Your task to perform on an android device: Go to wifi settings Image 0: 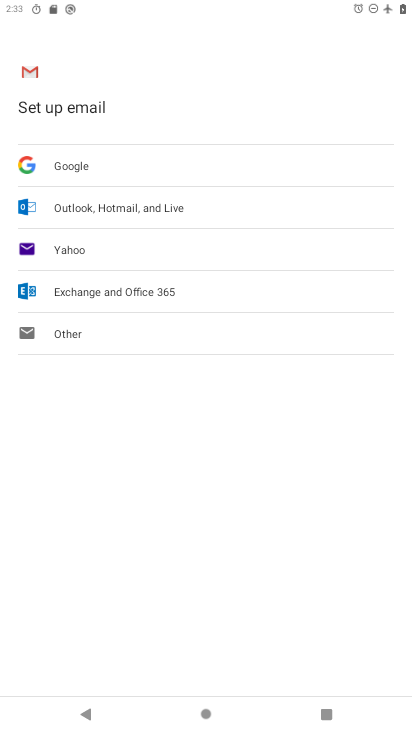
Step 0: press home button
Your task to perform on an android device: Go to wifi settings Image 1: 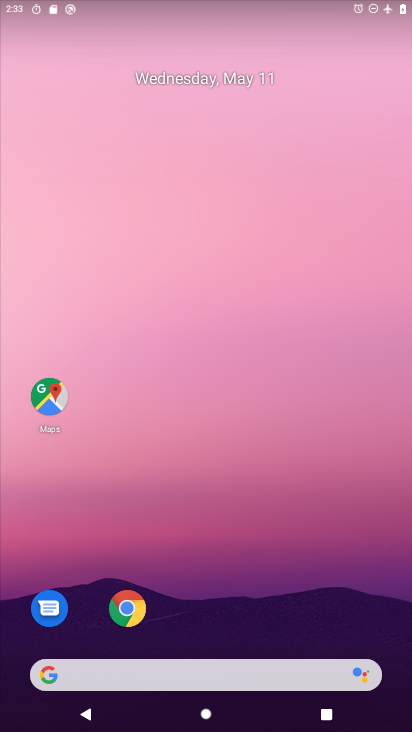
Step 1: drag from (180, 630) to (260, 92)
Your task to perform on an android device: Go to wifi settings Image 2: 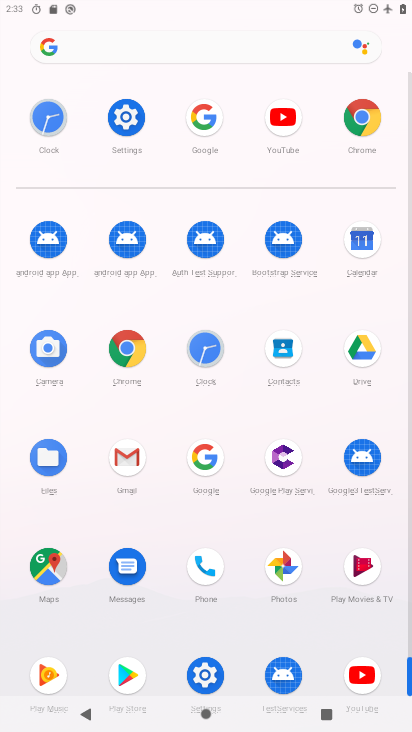
Step 2: click (118, 137)
Your task to perform on an android device: Go to wifi settings Image 3: 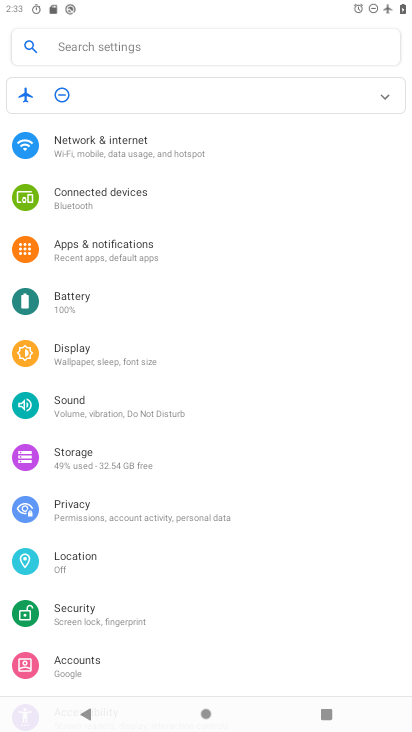
Step 3: drag from (157, 207) to (153, 506)
Your task to perform on an android device: Go to wifi settings Image 4: 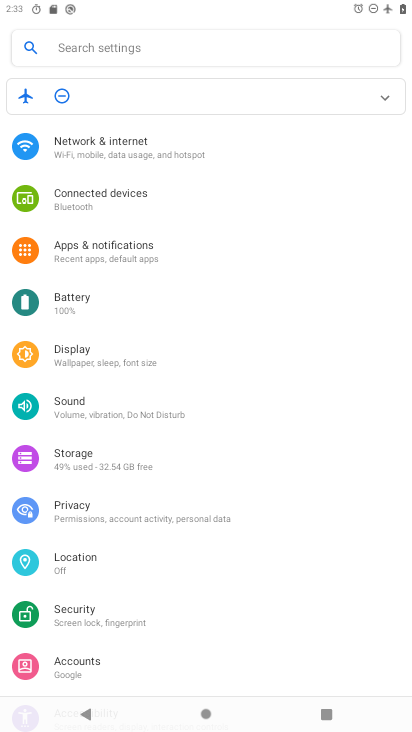
Step 4: click (204, 171)
Your task to perform on an android device: Go to wifi settings Image 5: 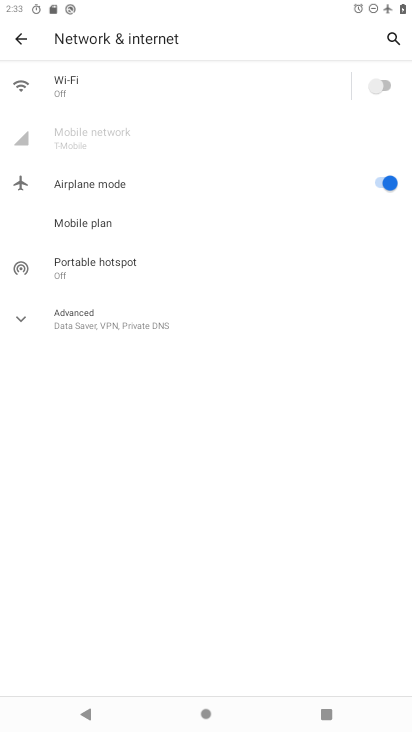
Step 5: click (241, 87)
Your task to perform on an android device: Go to wifi settings Image 6: 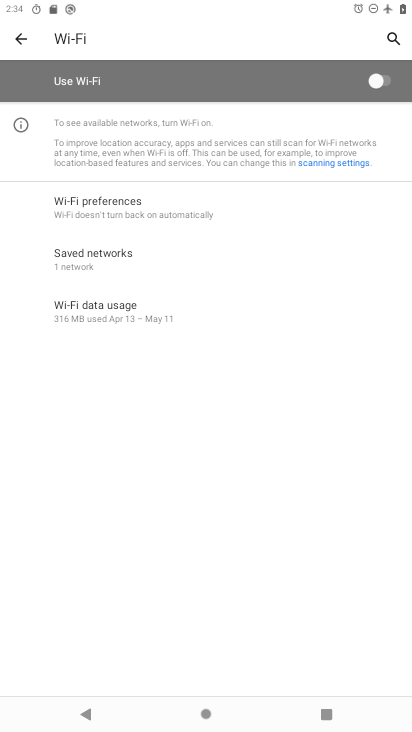
Step 6: task complete